Your task to perform on an android device: Go to ESPN.com Image 0: 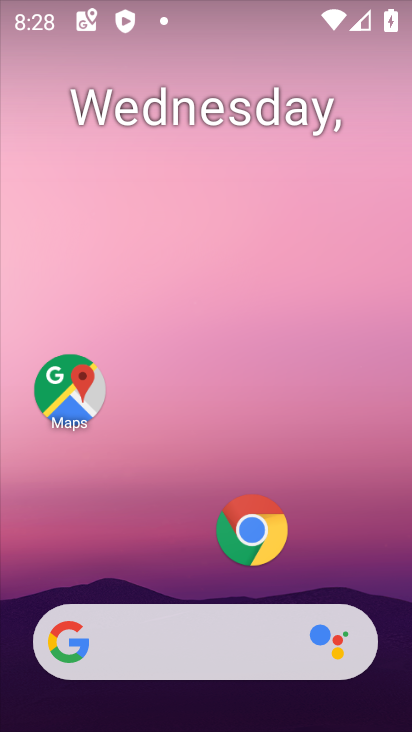
Step 0: click (253, 521)
Your task to perform on an android device: Go to ESPN.com Image 1: 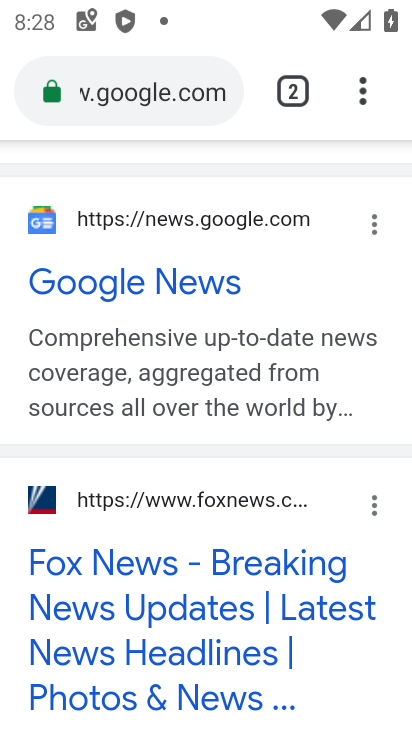
Step 1: click (291, 88)
Your task to perform on an android device: Go to ESPN.com Image 2: 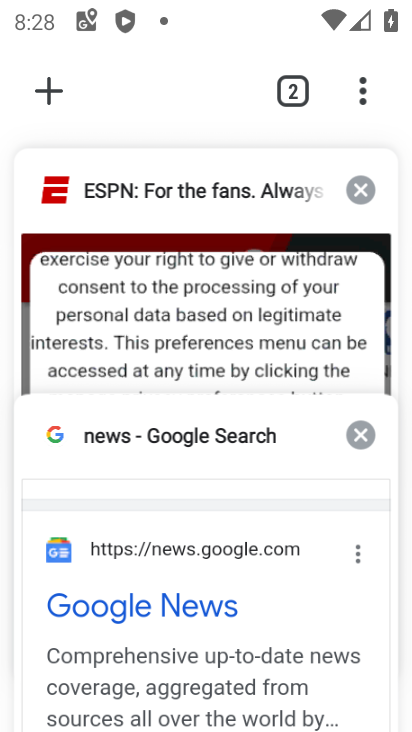
Step 2: click (111, 202)
Your task to perform on an android device: Go to ESPN.com Image 3: 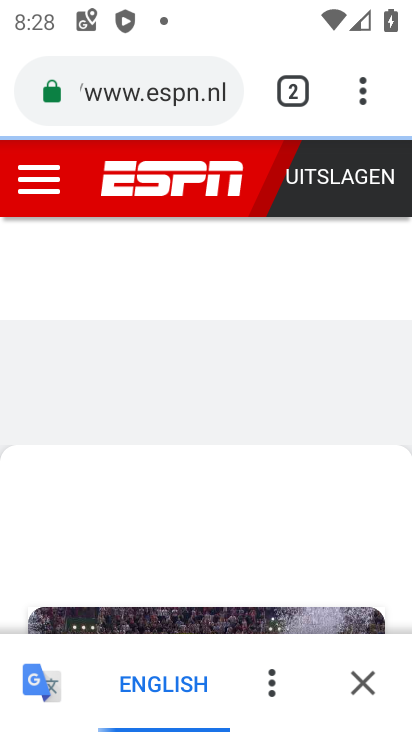
Step 3: task complete